Your task to perform on an android device: turn off wifi Image 0: 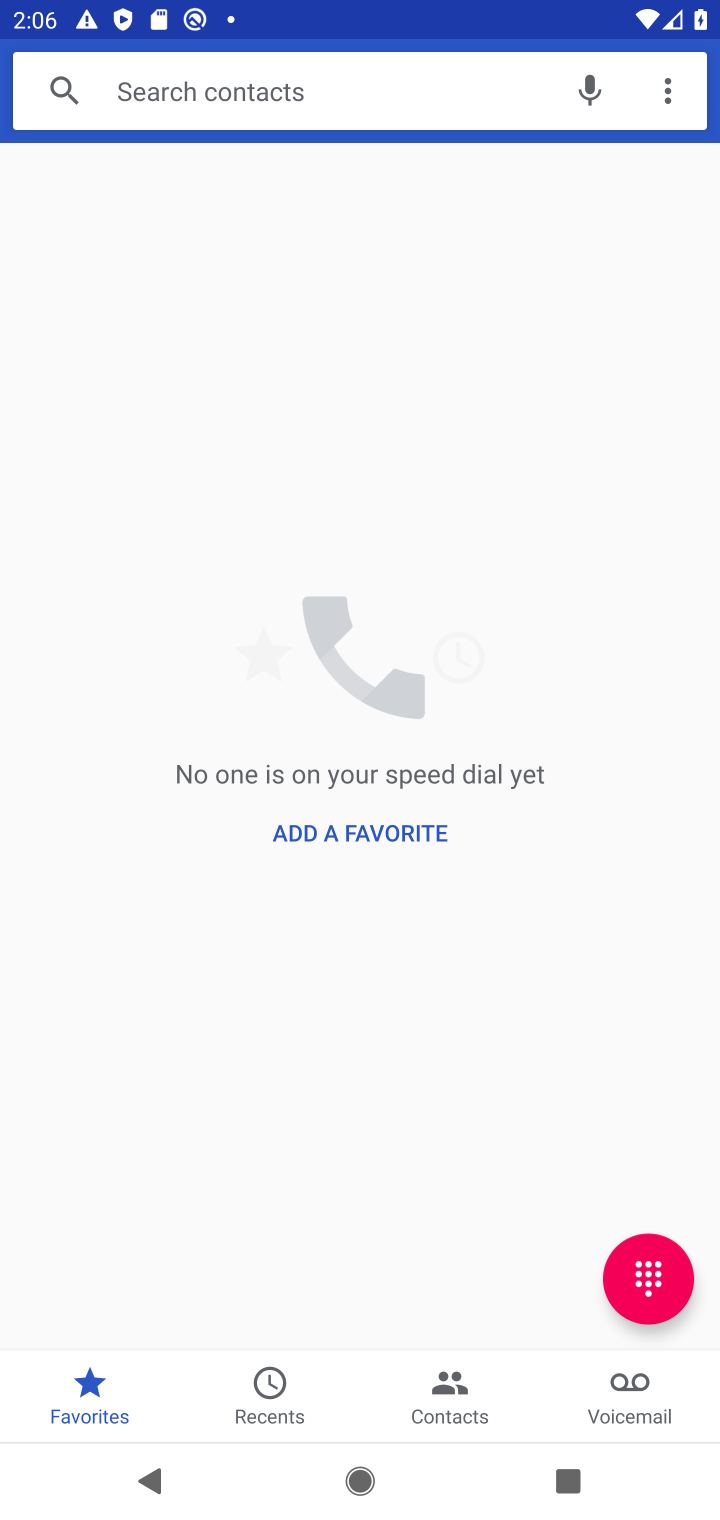
Step 0: press back button
Your task to perform on an android device: turn off wifi Image 1: 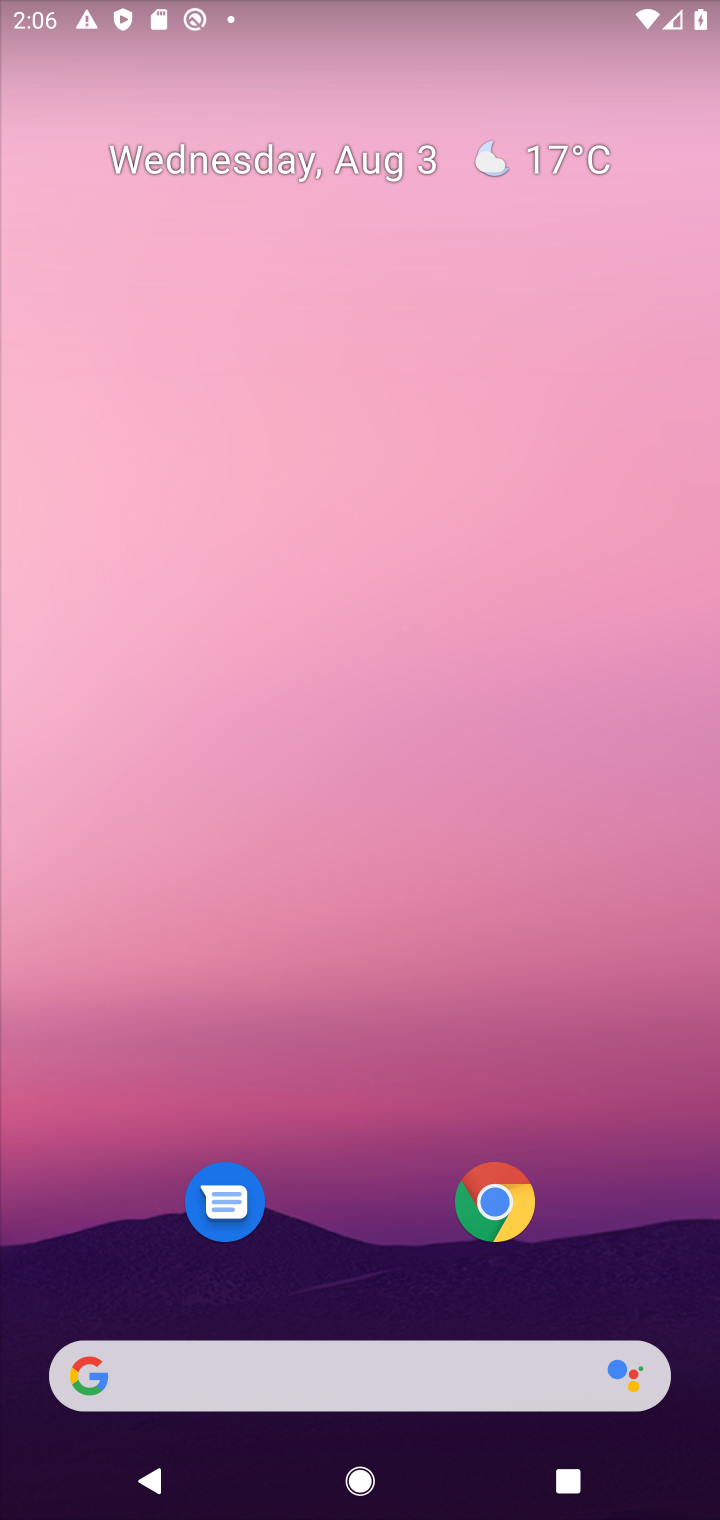
Step 1: drag from (67, 18) to (281, 1195)
Your task to perform on an android device: turn off wifi Image 2: 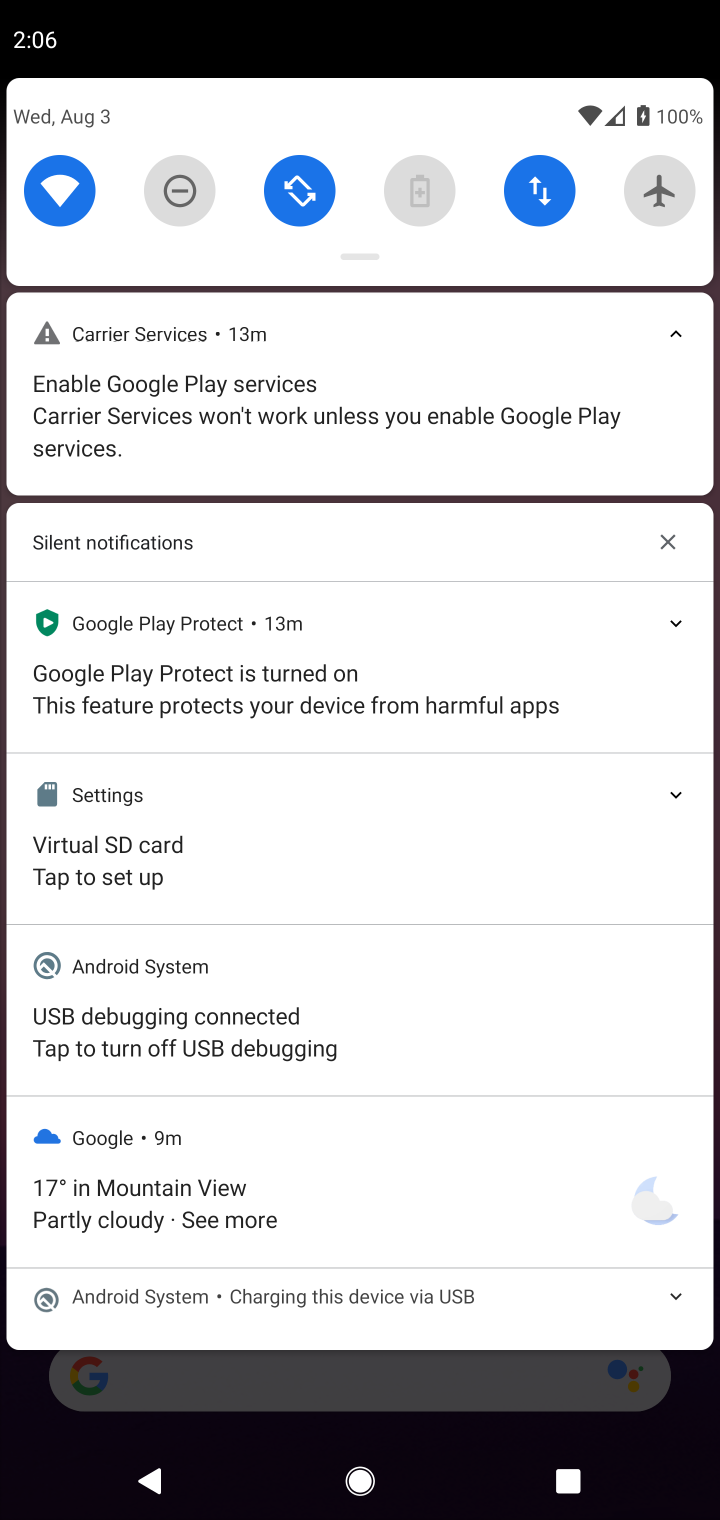
Step 2: click (75, 180)
Your task to perform on an android device: turn off wifi Image 3: 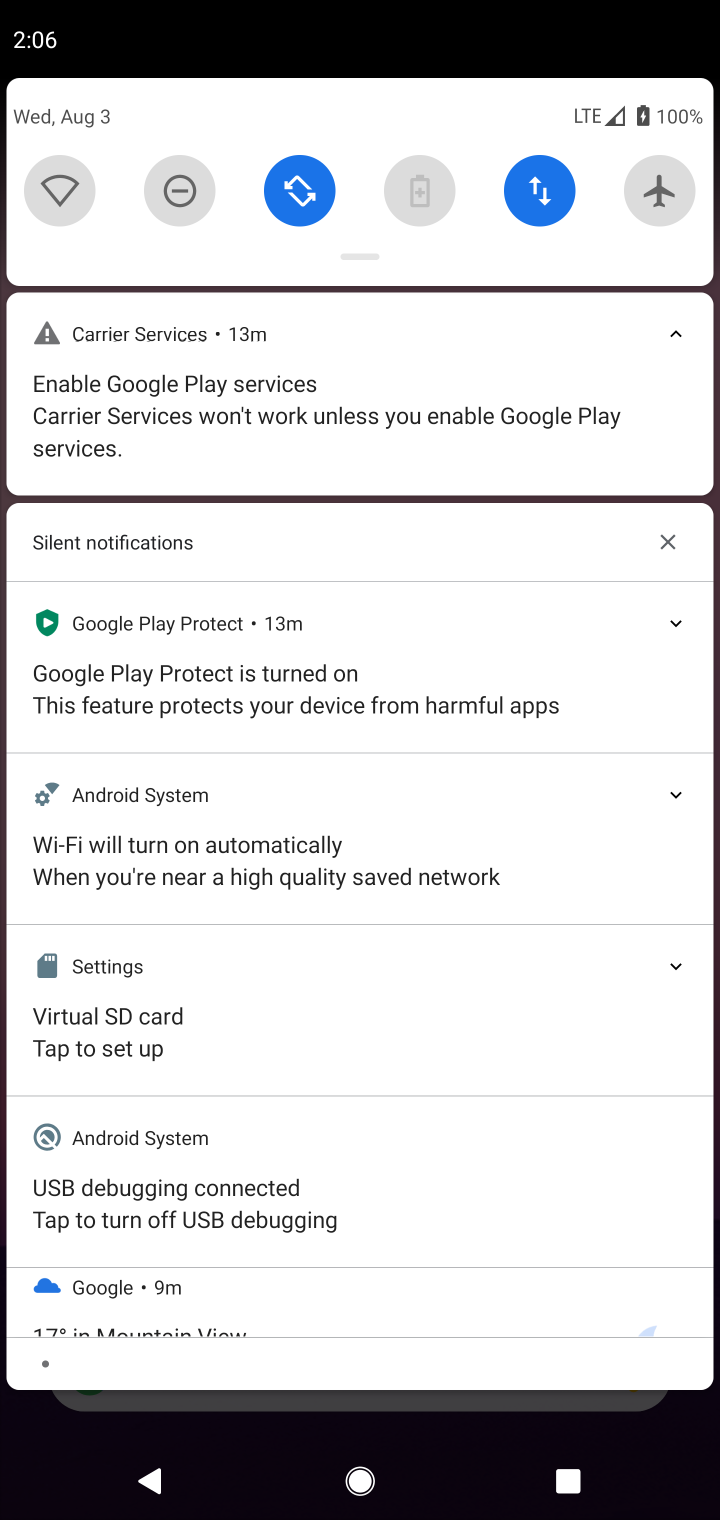
Step 3: task complete